Your task to perform on an android device: open app "Duolingo: language lessons" (install if not already installed) Image 0: 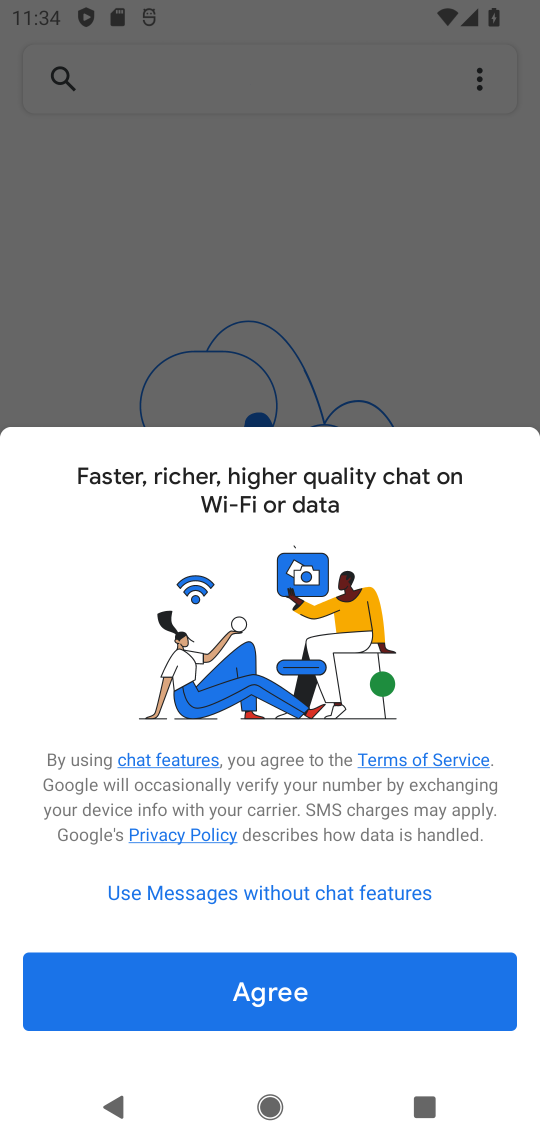
Step 0: press home button
Your task to perform on an android device: open app "Duolingo: language lessons" (install if not already installed) Image 1: 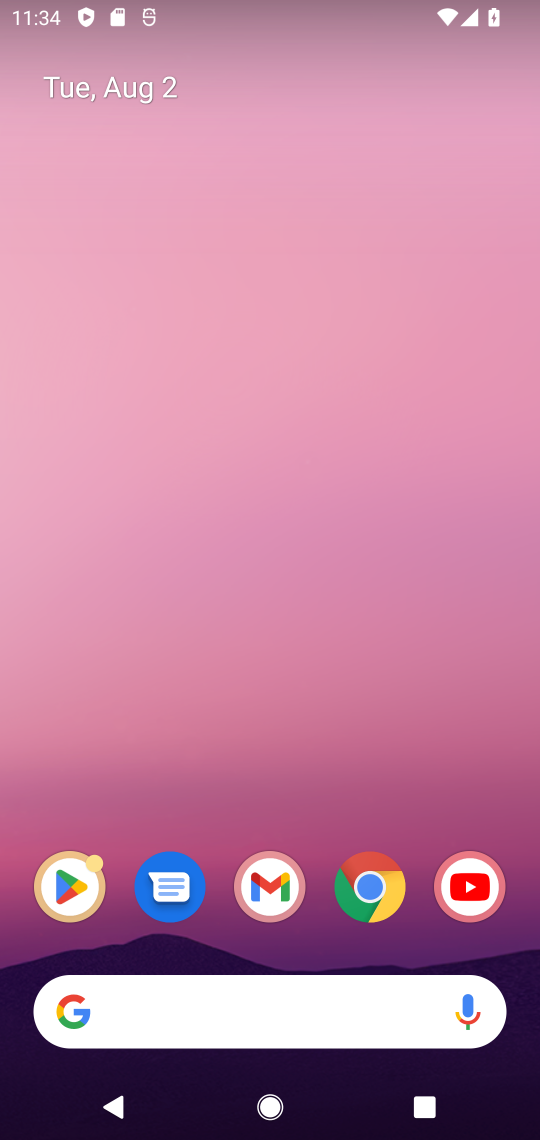
Step 1: click (78, 897)
Your task to perform on an android device: open app "Duolingo: language lessons" (install if not already installed) Image 2: 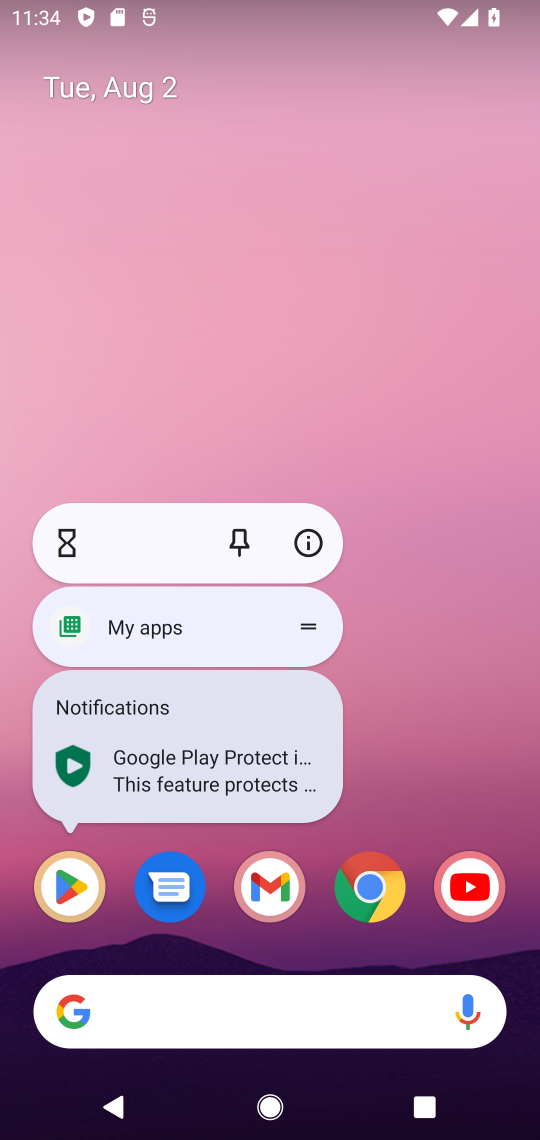
Step 2: click (78, 897)
Your task to perform on an android device: open app "Duolingo: language lessons" (install if not already installed) Image 3: 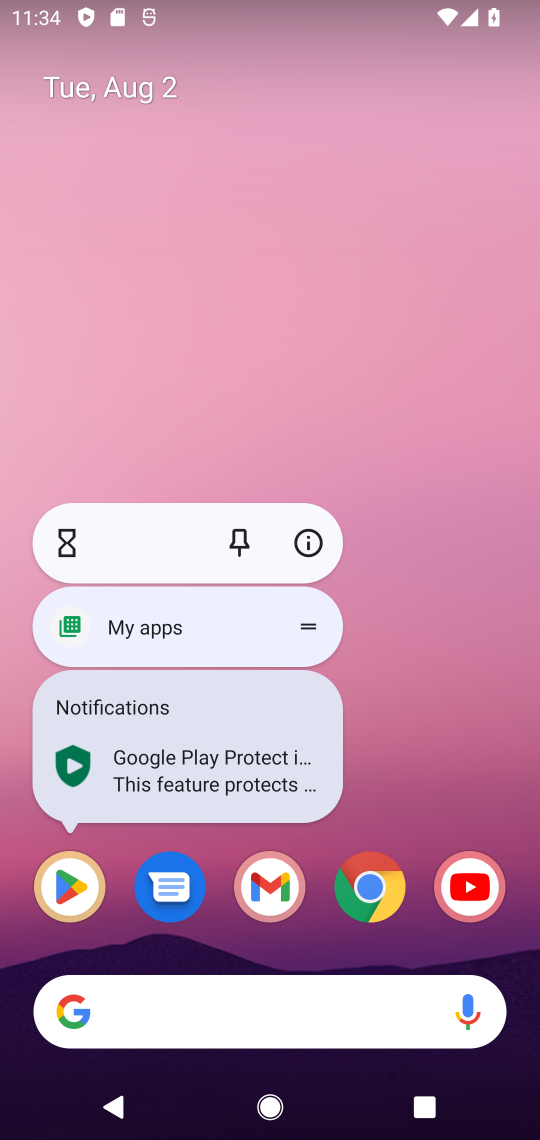
Step 3: click (67, 899)
Your task to perform on an android device: open app "Duolingo: language lessons" (install if not already installed) Image 4: 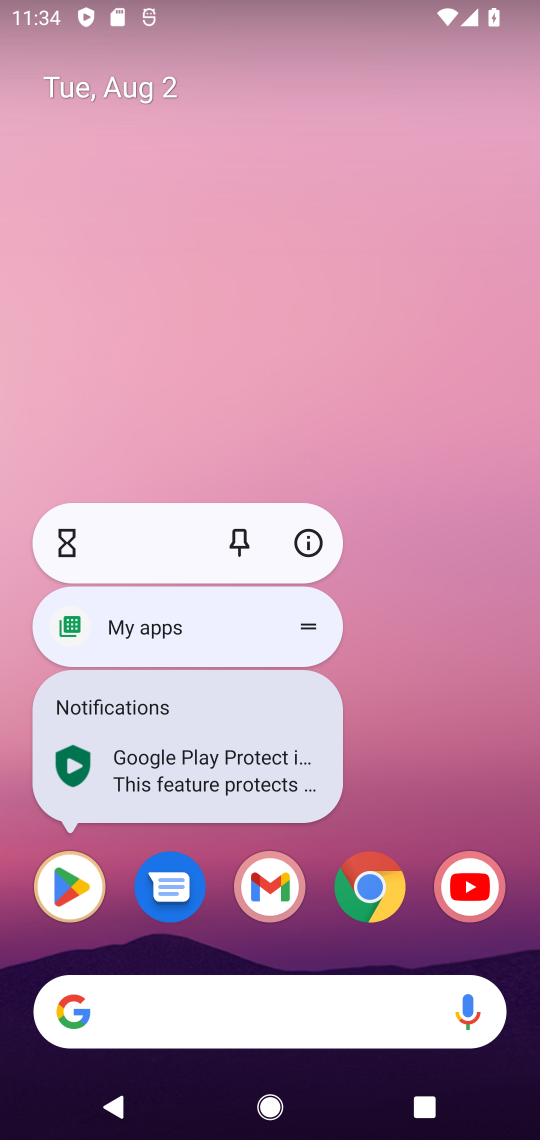
Step 4: click (65, 914)
Your task to perform on an android device: open app "Duolingo: language lessons" (install if not already installed) Image 5: 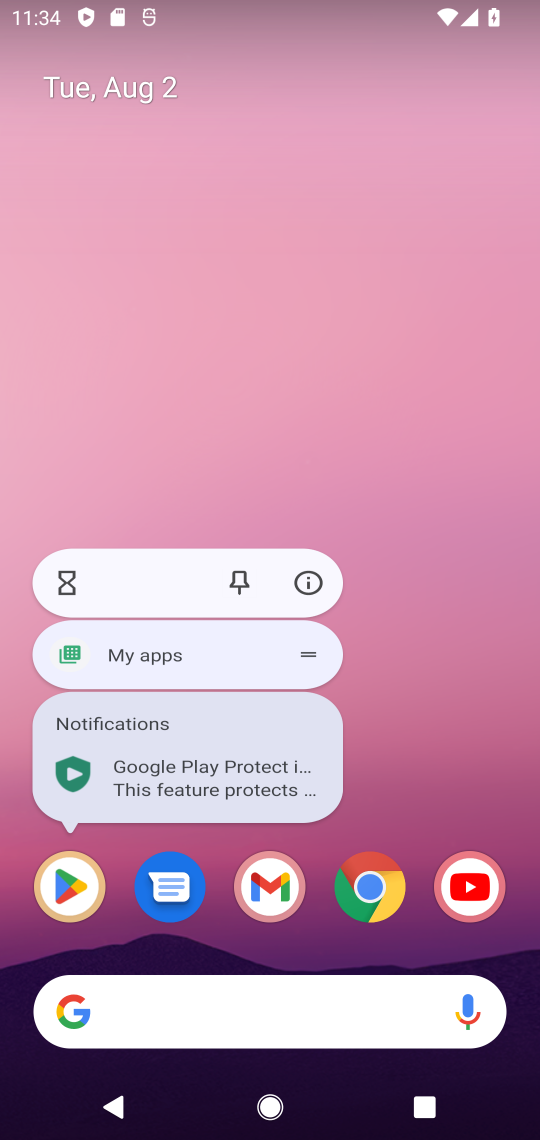
Step 5: click (42, 870)
Your task to perform on an android device: open app "Duolingo: language lessons" (install if not already installed) Image 6: 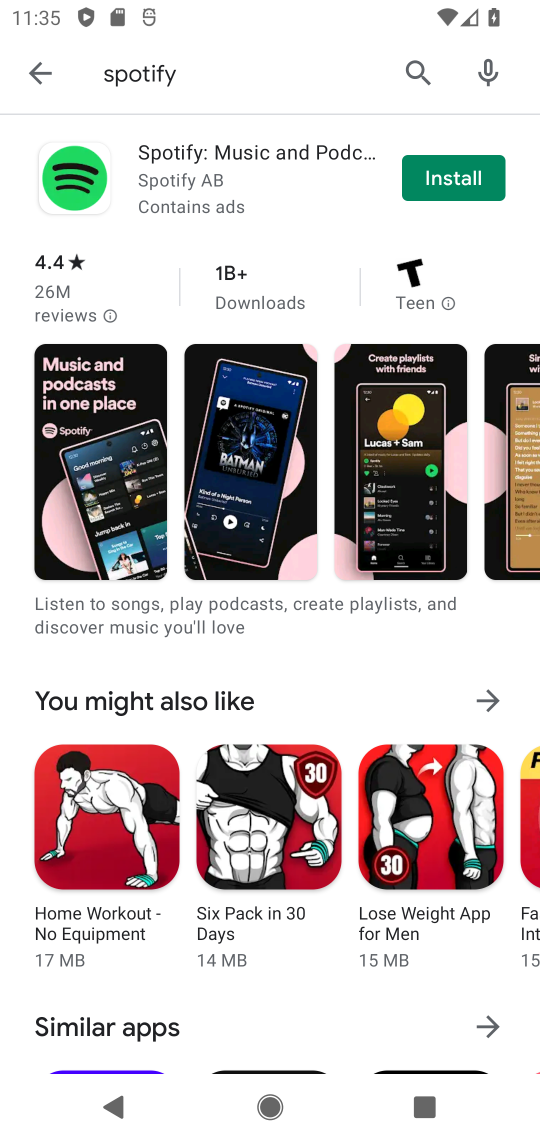
Step 6: click (440, 79)
Your task to perform on an android device: open app "Duolingo: language lessons" (install if not already installed) Image 7: 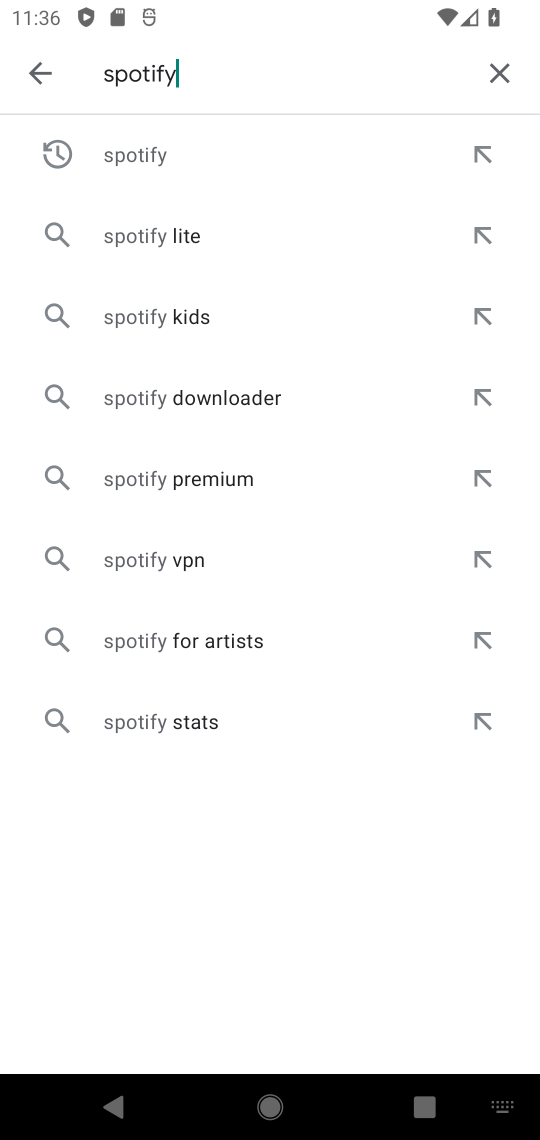
Step 7: click (508, 75)
Your task to perform on an android device: open app "Duolingo: language lessons" (install if not already installed) Image 8: 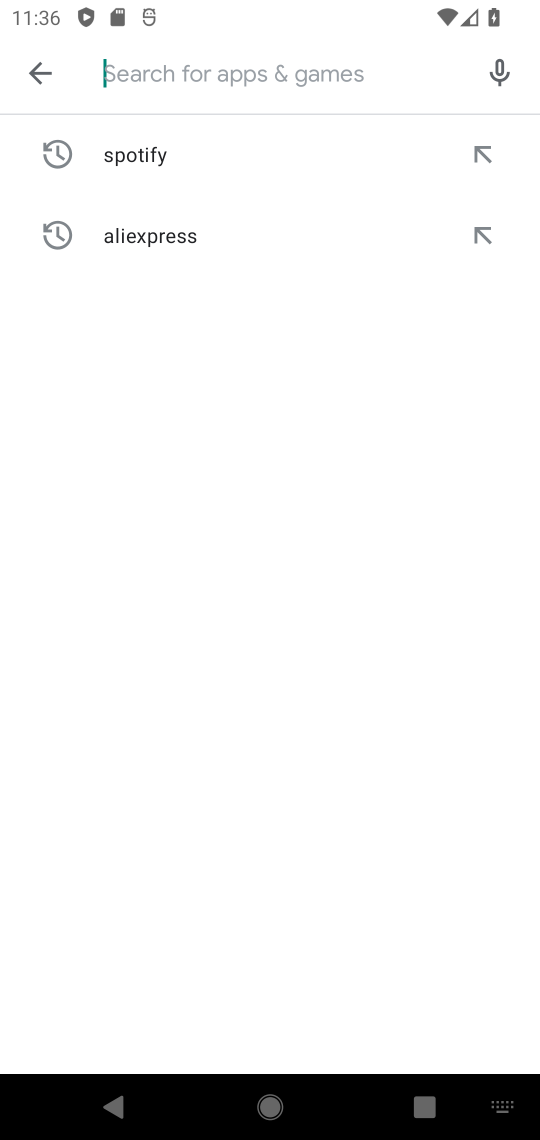
Step 8: click (315, 52)
Your task to perform on an android device: open app "Duolingo: language lessons" (install if not already installed) Image 9: 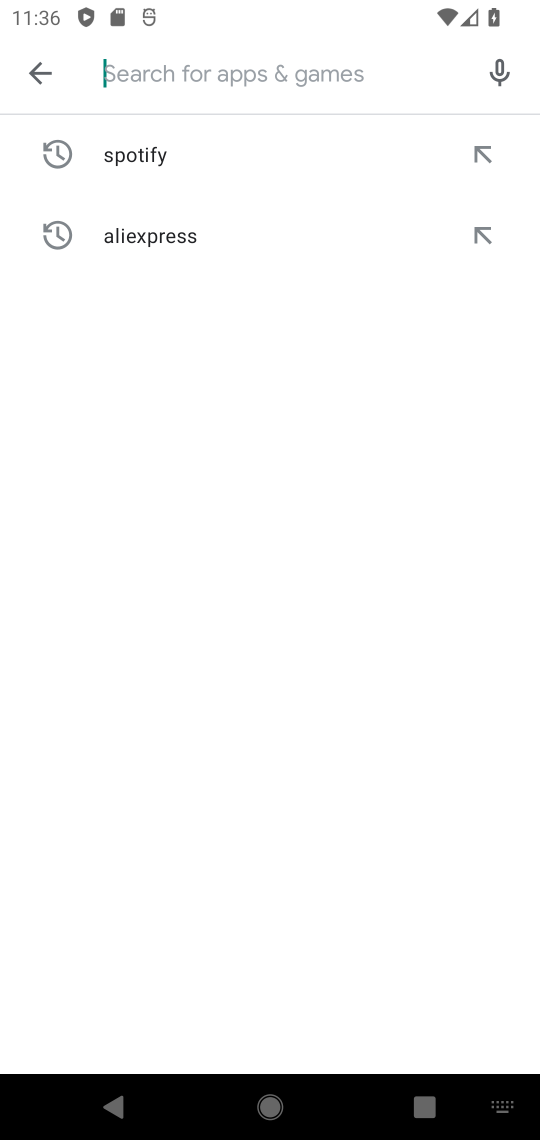
Step 9: type "Duolingo"
Your task to perform on an android device: open app "Duolingo: language lessons" (install if not already installed) Image 10: 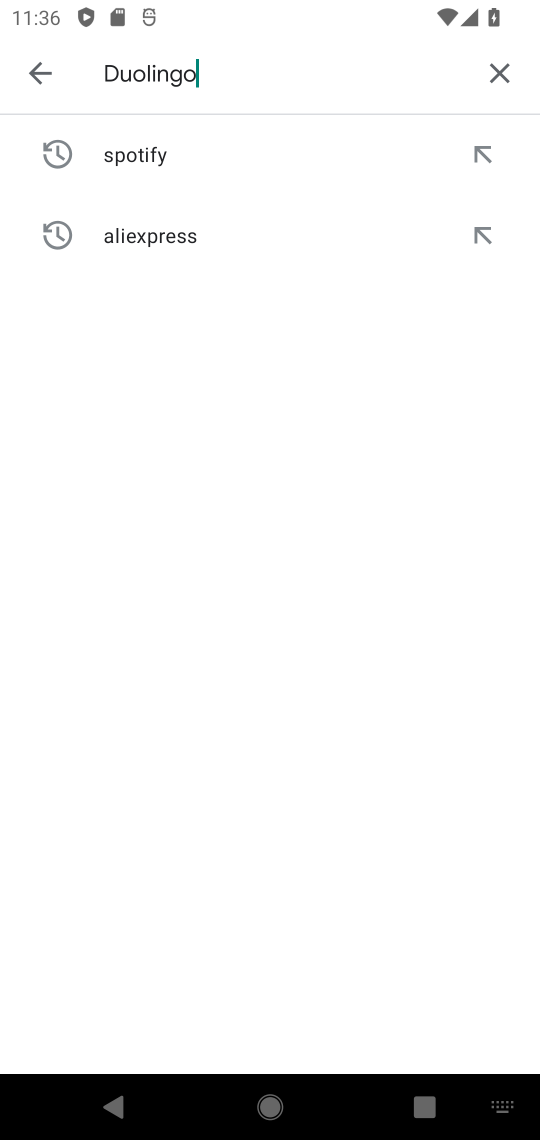
Step 10: type ""
Your task to perform on an android device: open app "Duolingo: language lessons" (install if not already installed) Image 11: 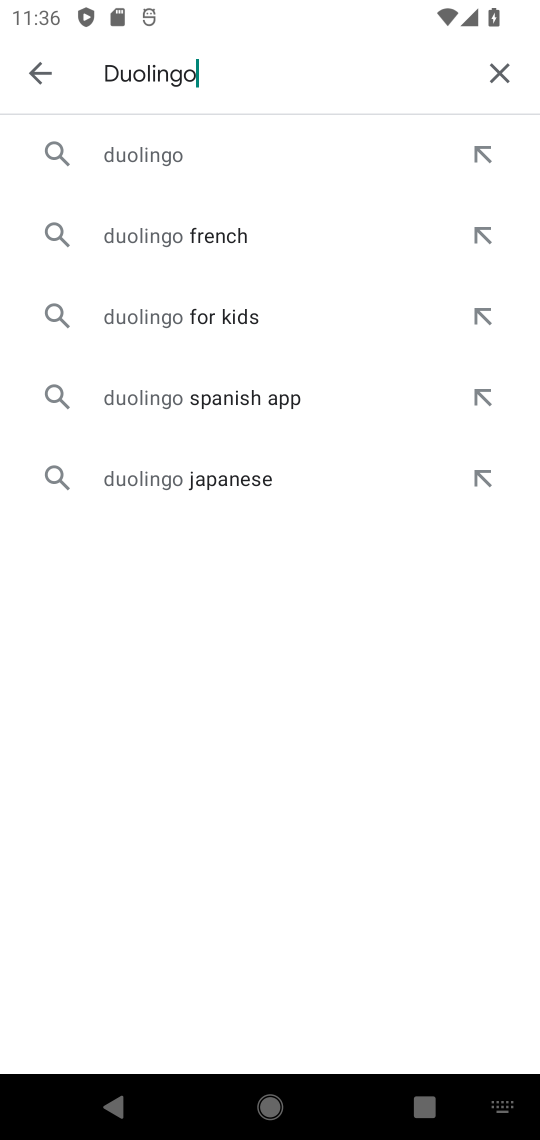
Step 11: type ""
Your task to perform on an android device: open app "Duolingo: language lessons" (install if not already installed) Image 12: 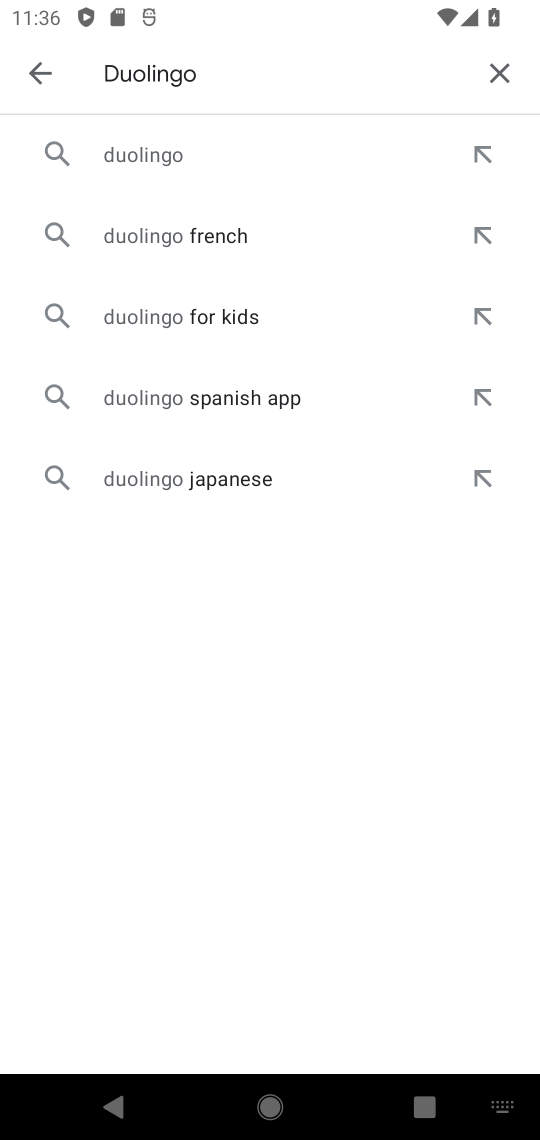
Step 12: press enter
Your task to perform on an android device: open app "Duolingo: language lessons" (install if not already installed) Image 13: 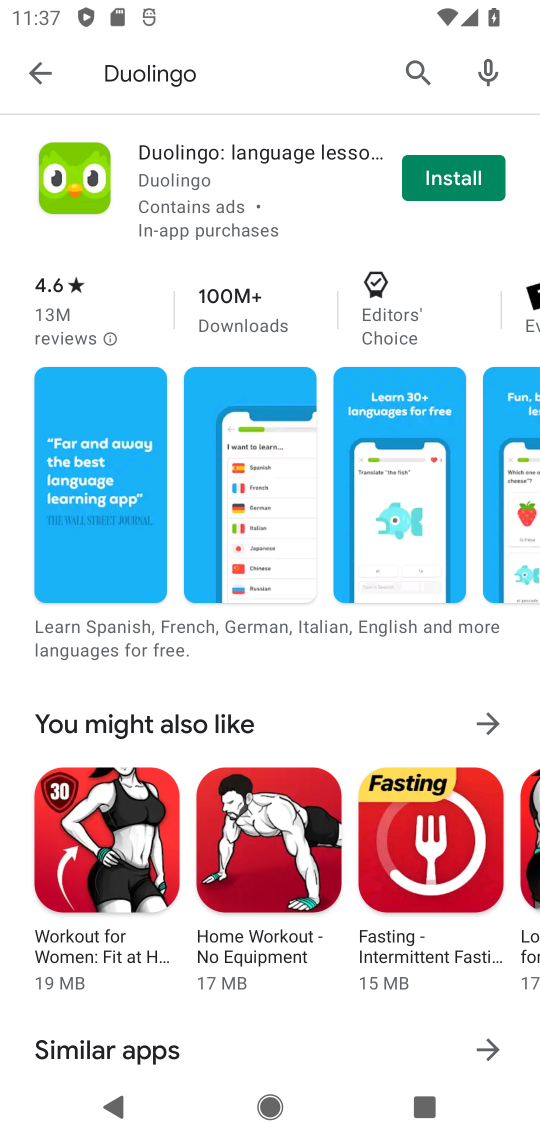
Step 13: click (426, 178)
Your task to perform on an android device: open app "Duolingo: language lessons" (install if not already installed) Image 14: 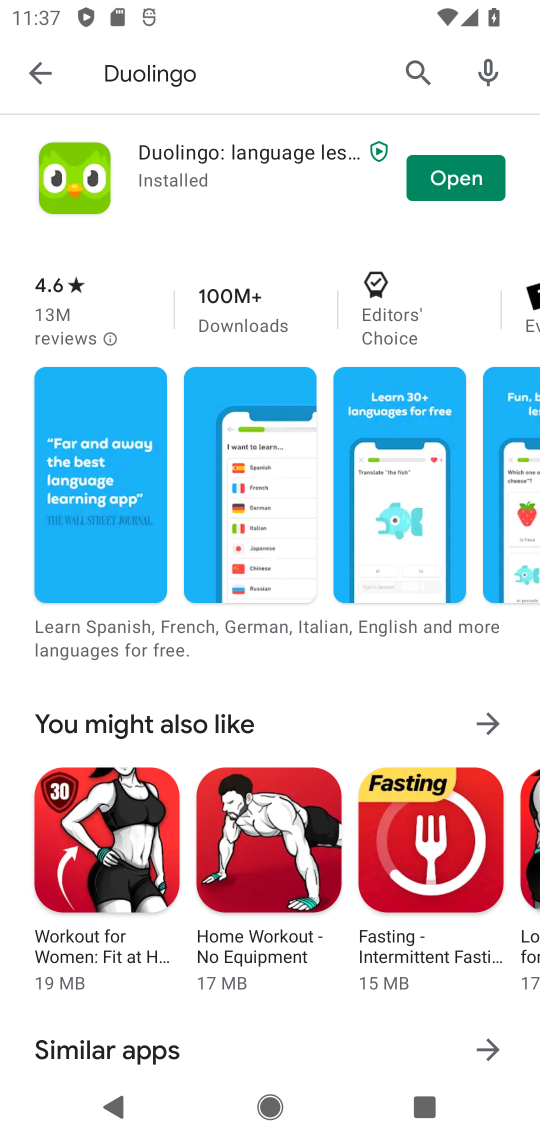
Step 14: click (436, 197)
Your task to perform on an android device: open app "Duolingo: language lessons" (install if not already installed) Image 15: 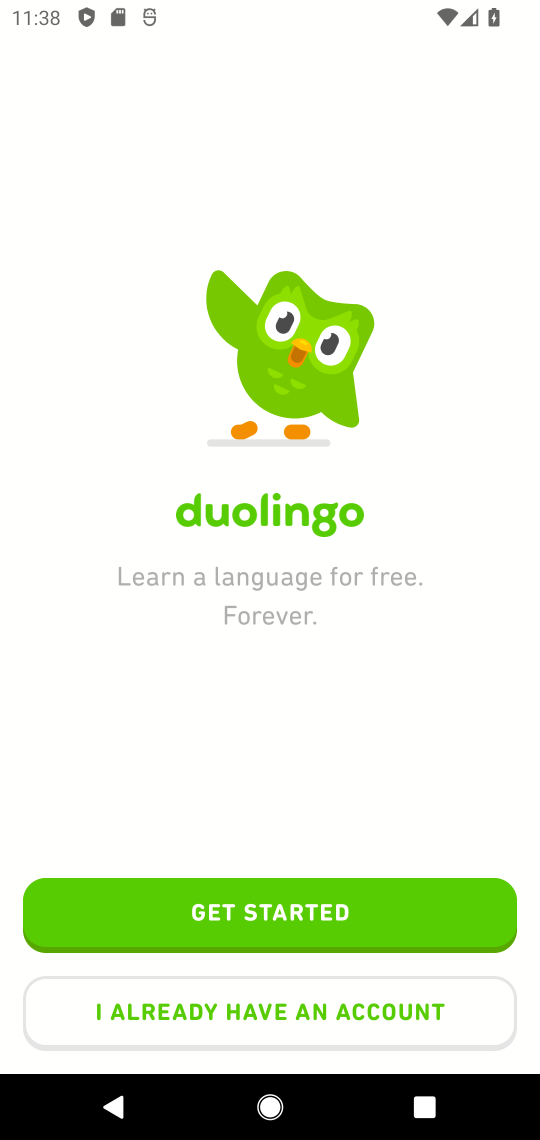
Step 15: task complete